Your task to perform on an android device: Open location settings Image 0: 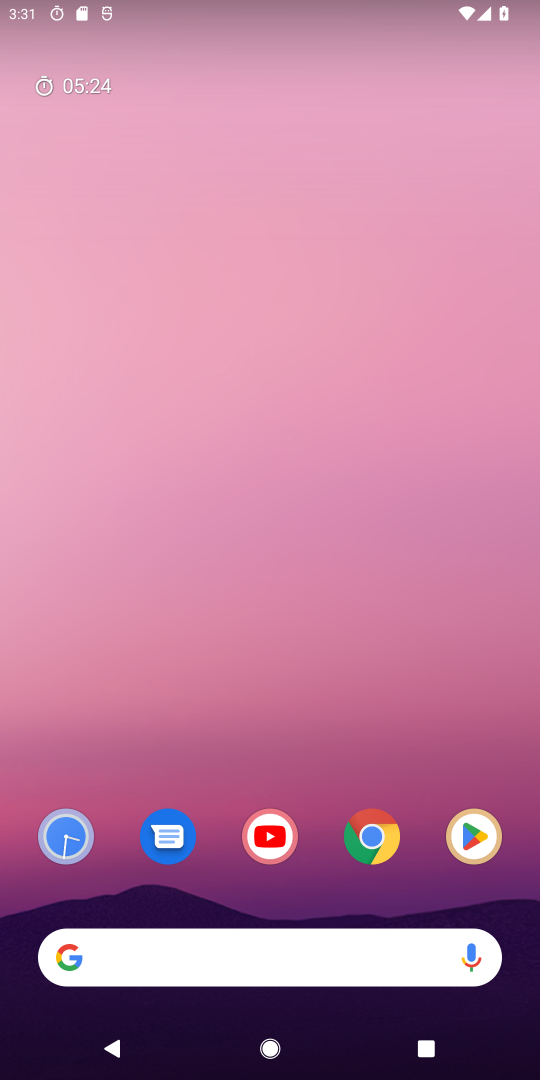
Step 0: drag from (230, 850) to (328, 241)
Your task to perform on an android device: Open location settings Image 1: 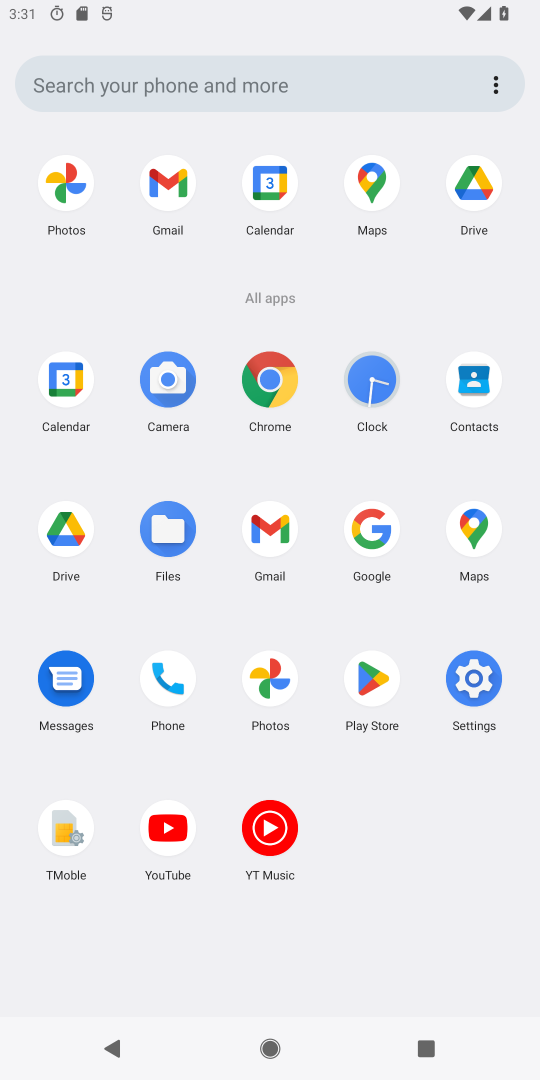
Step 1: click (480, 684)
Your task to perform on an android device: Open location settings Image 2: 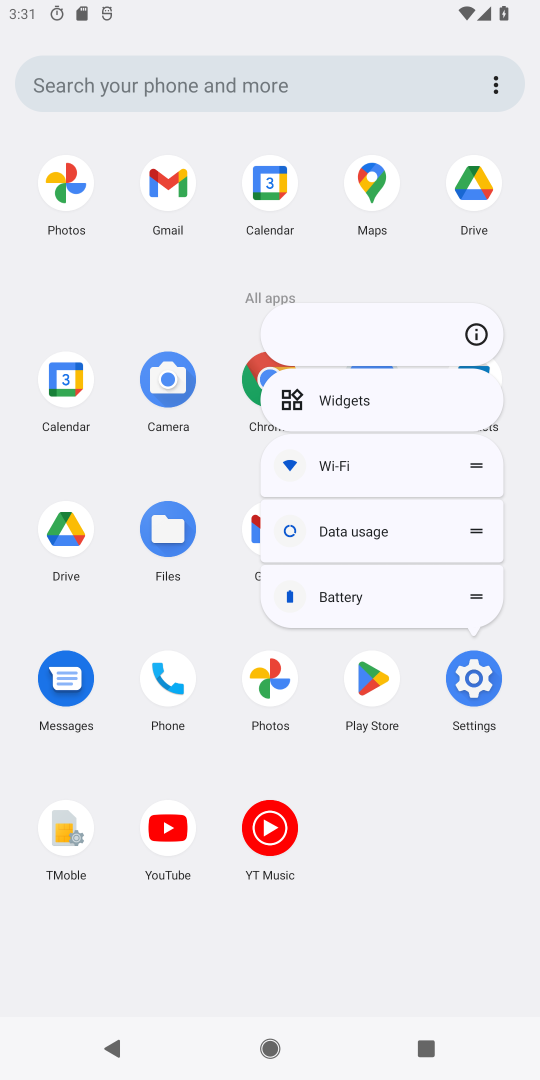
Step 2: click (472, 339)
Your task to perform on an android device: Open location settings Image 3: 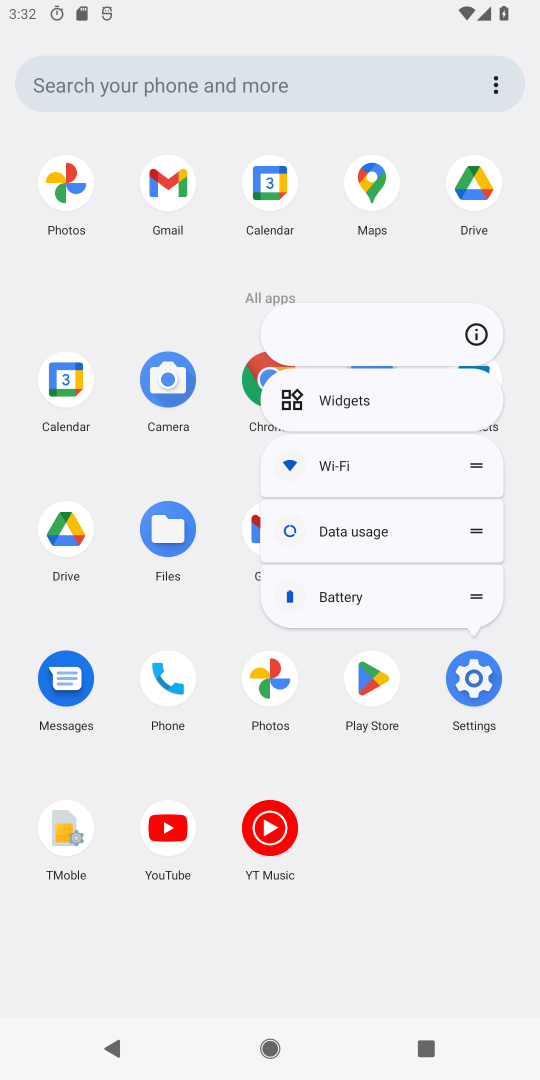
Step 3: click (469, 344)
Your task to perform on an android device: Open location settings Image 4: 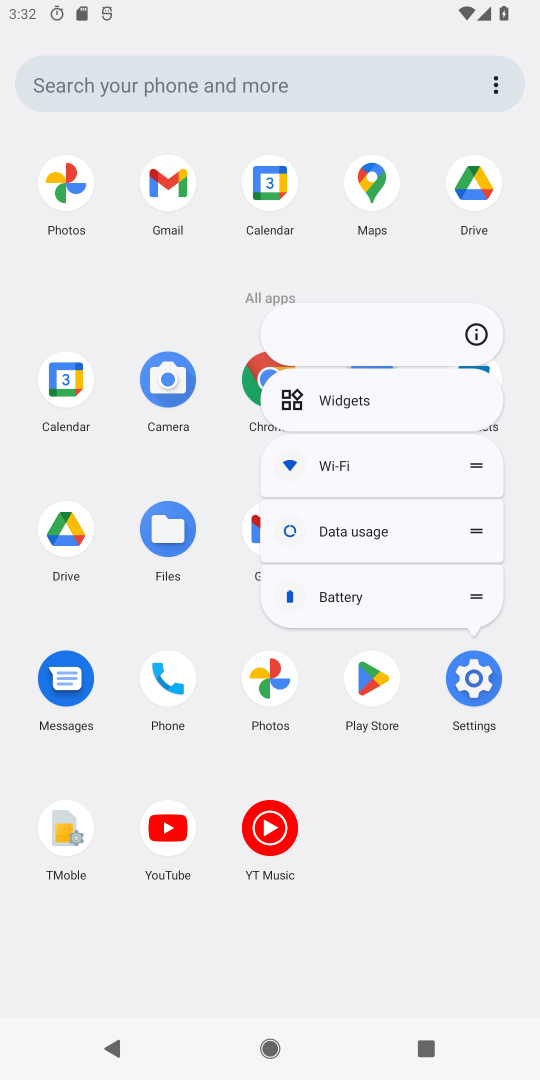
Step 4: click (466, 322)
Your task to perform on an android device: Open location settings Image 5: 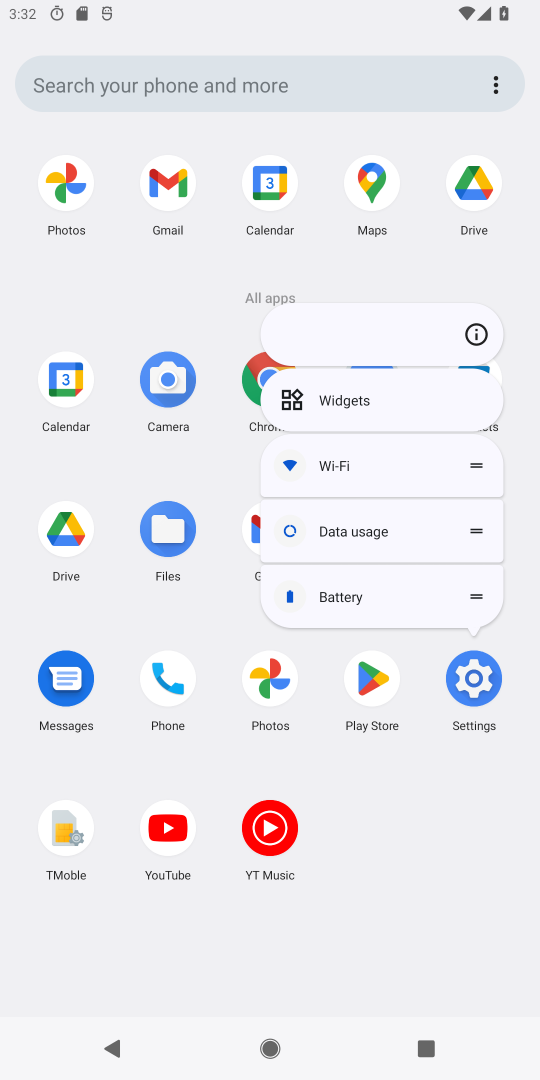
Step 5: click (464, 335)
Your task to perform on an android device: Open location settings Image 6: 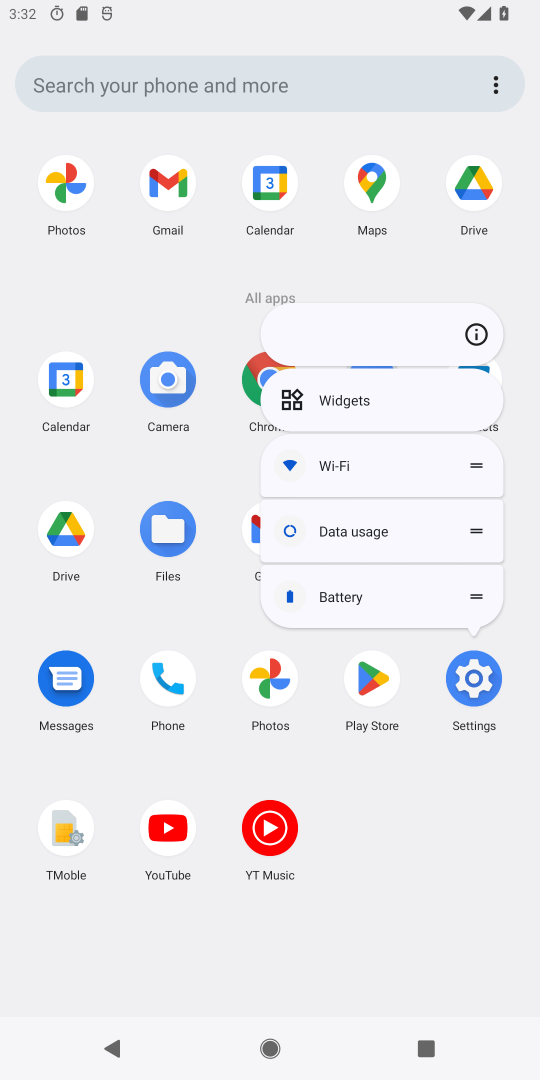
Step 6: click (476, 325)
Your task to perform on an android device: Open location settings Image 7: 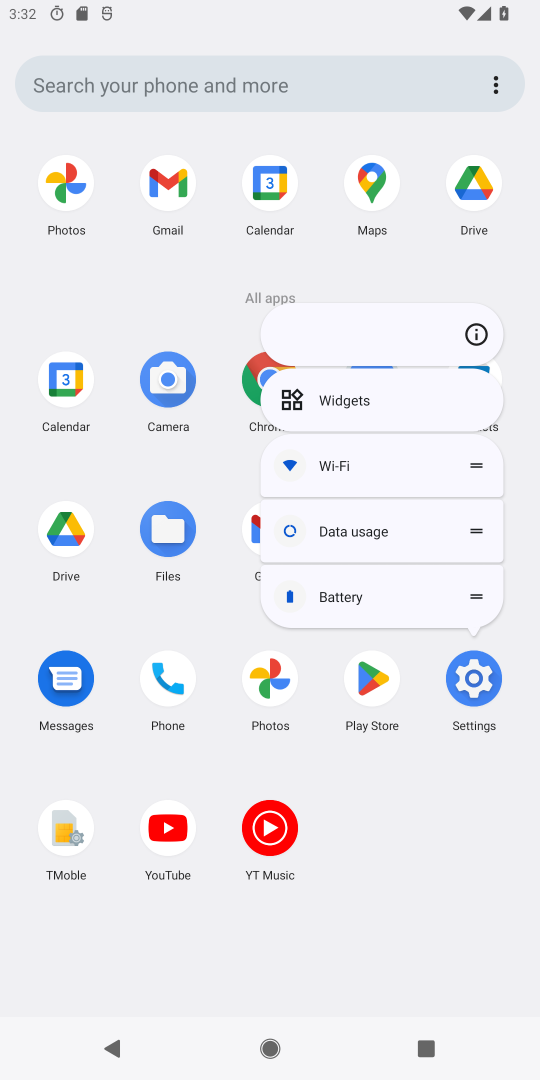
Step 7: click (472, 329)
Your task to perform on an android device: Open location settings Image 8: 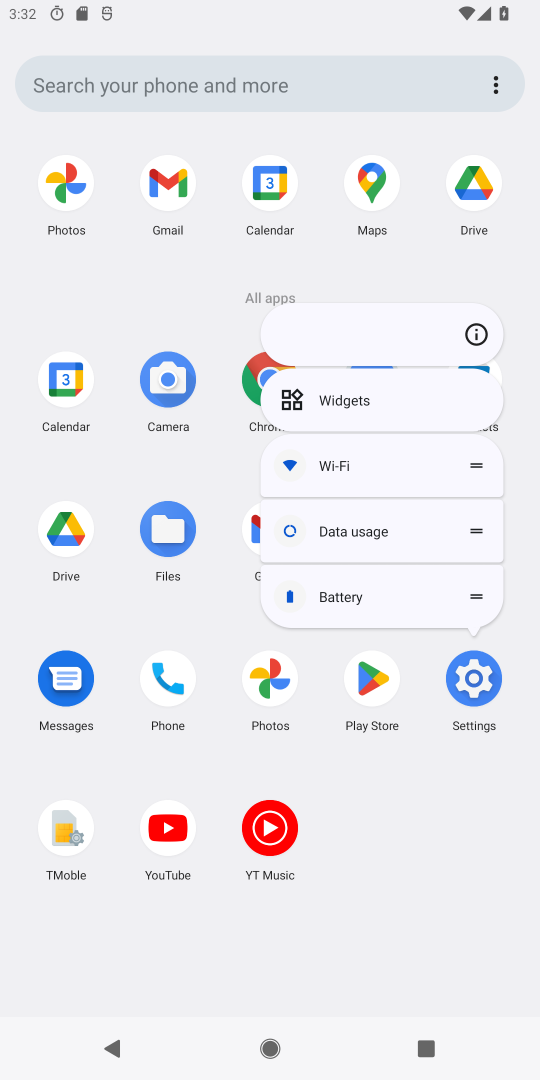
Step 8: click (483, 328)
Your task to perform on an android device: Open location settings Image 9: 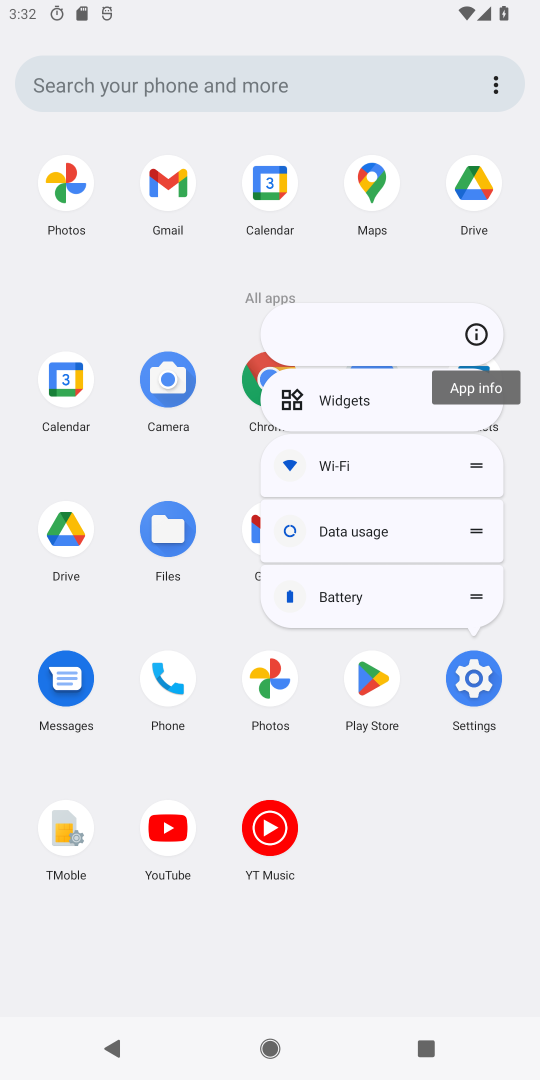
Step 9: click (474, 323)
Your task to perform on an android device: Open location settings Image 10: 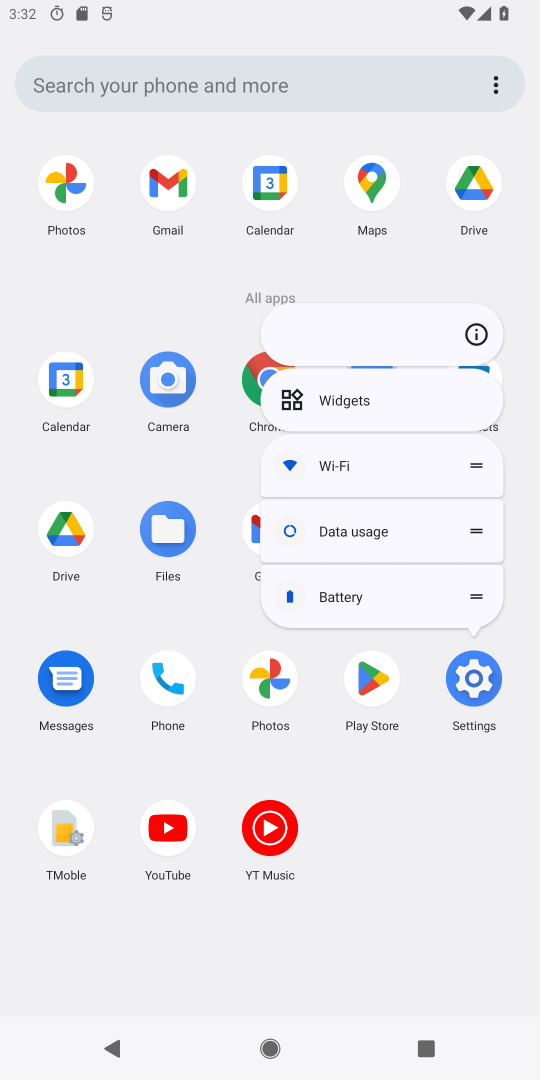
Step 10: click (482, 339)
Your task to perform on an android device: Open location settings Image 11: 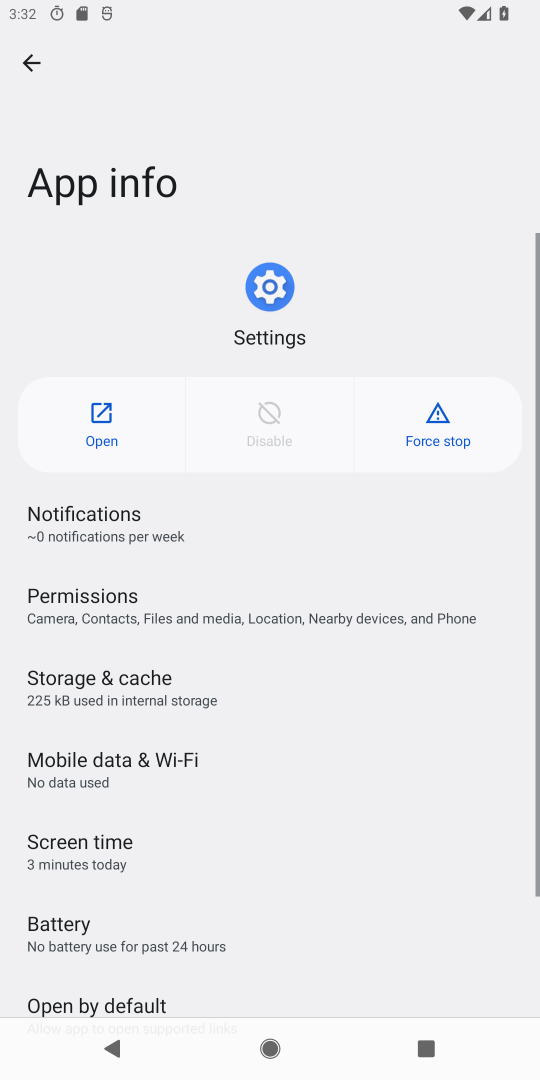
Step 11: click (106, 420)
Your task to perform on an android device: Open location settings Image 12: 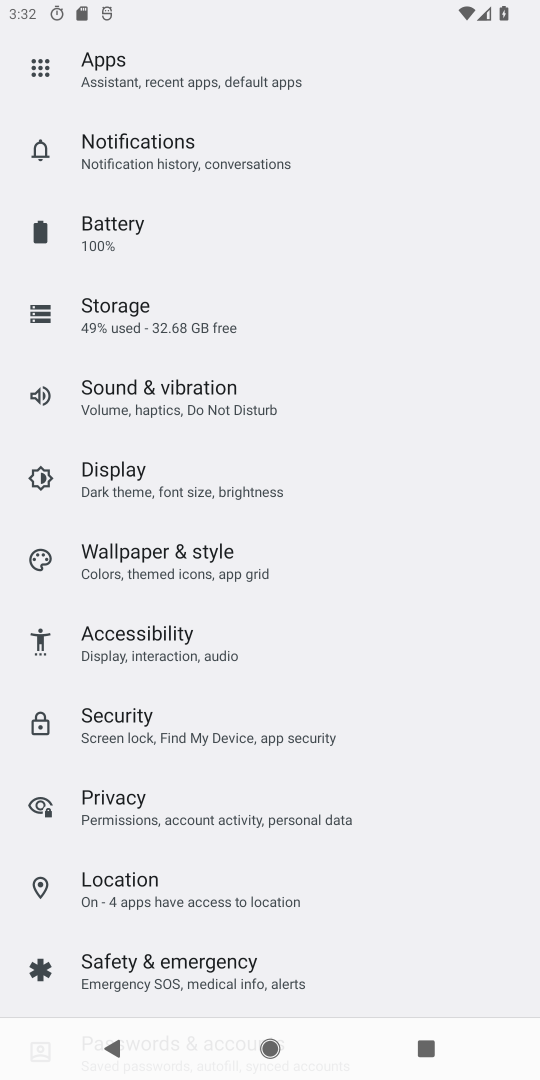
Step 12: click (183, 898)
Your task to perform on an android device: Open location settings Image 13: 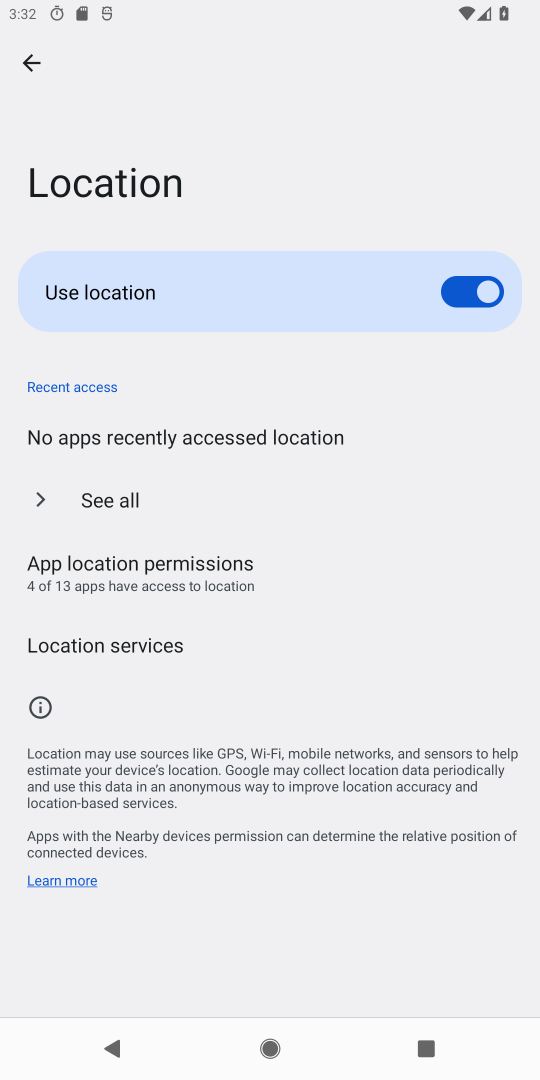
Step 13: task complete